Your task to perform on an android device: Open sound settings Image 0: 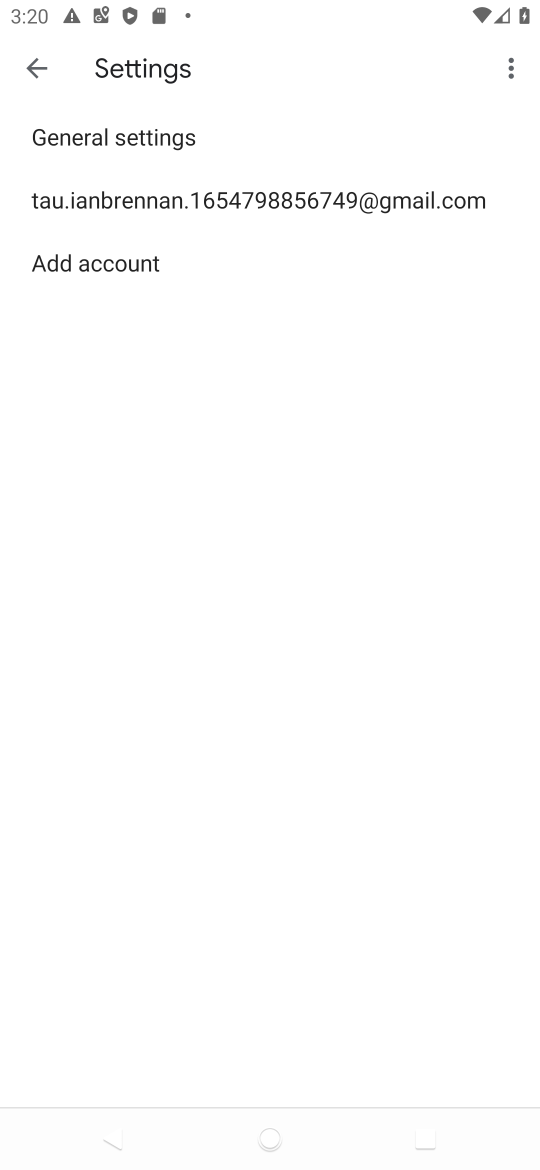
Step 0: drag from (284, 963) to (211, 138)
Your task to perform on an android device: Open sound settings Image 1: 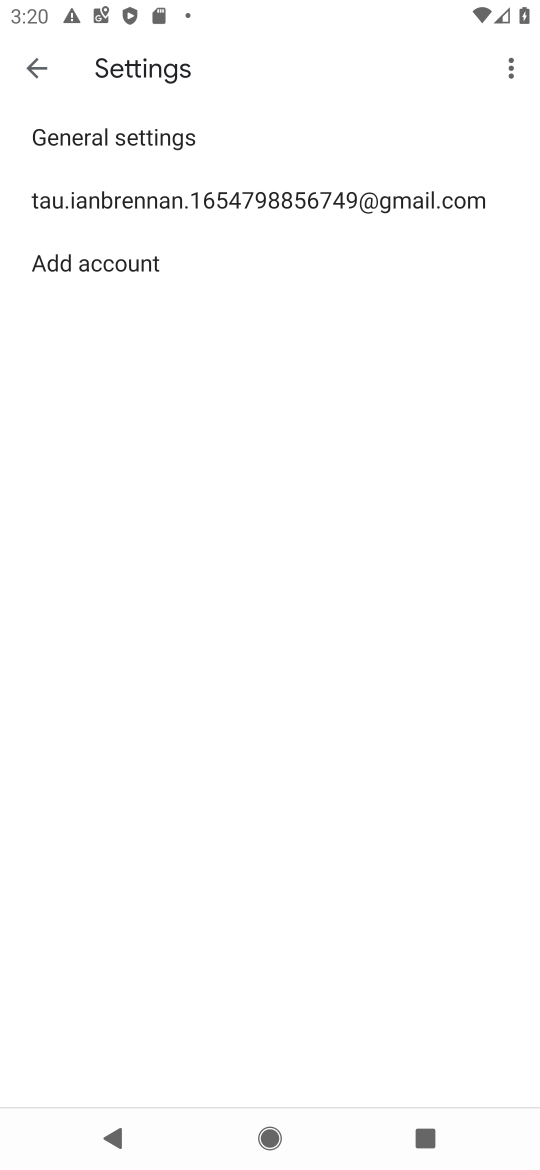
Step 1: press home button
Your task to perform on an android device: Open sound settings Image 2: 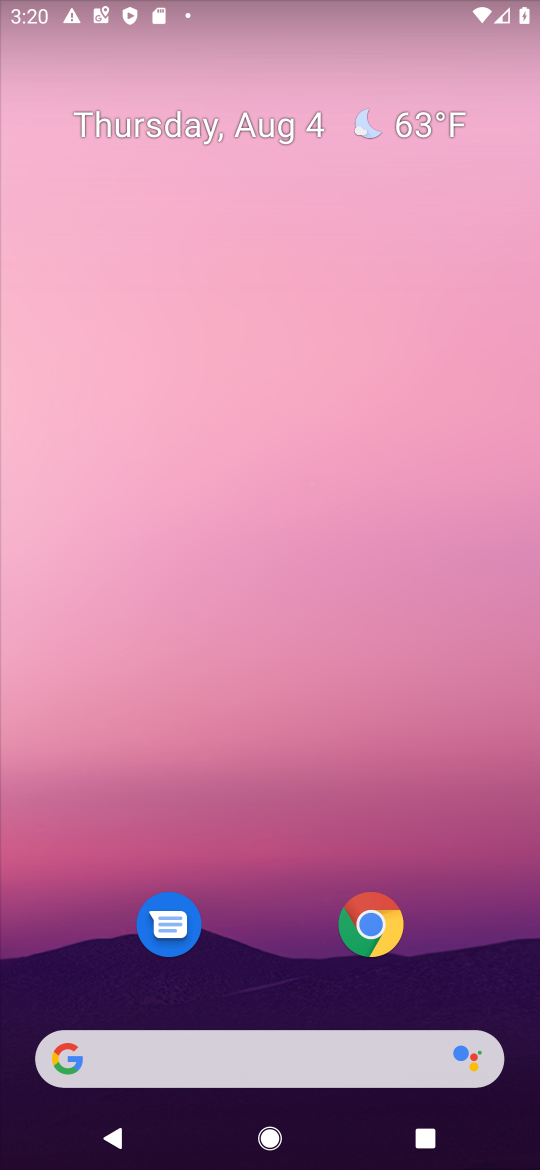
Step 2: drag from (261, 956) to (234, 120)
Your task to perform on an android device: Open sound settings Image 3: 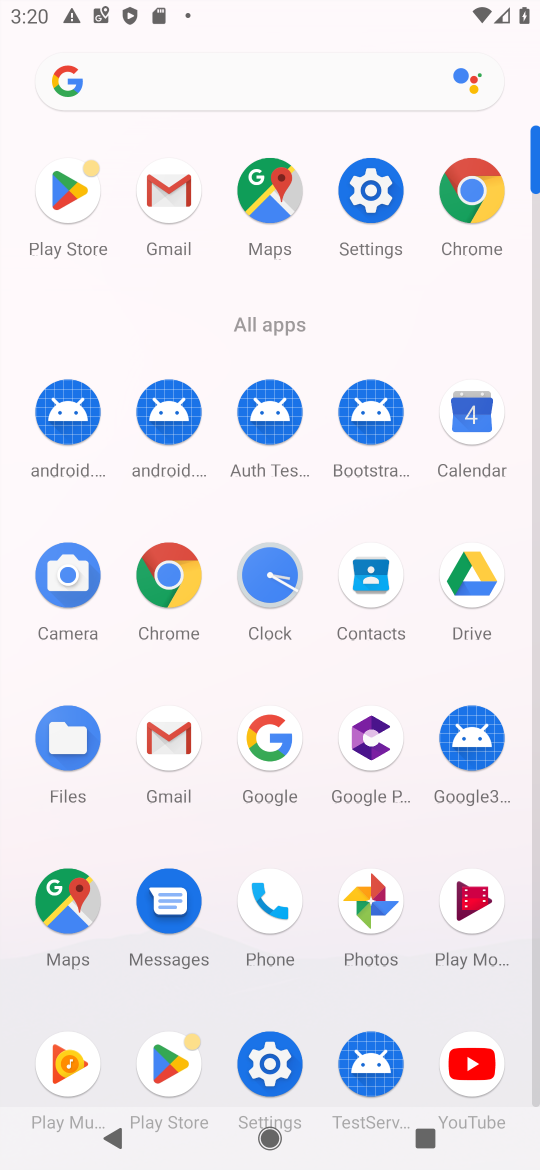
Step 3: click (355, 189)
Your task to perform on an android device: Open sound settings Image 4: 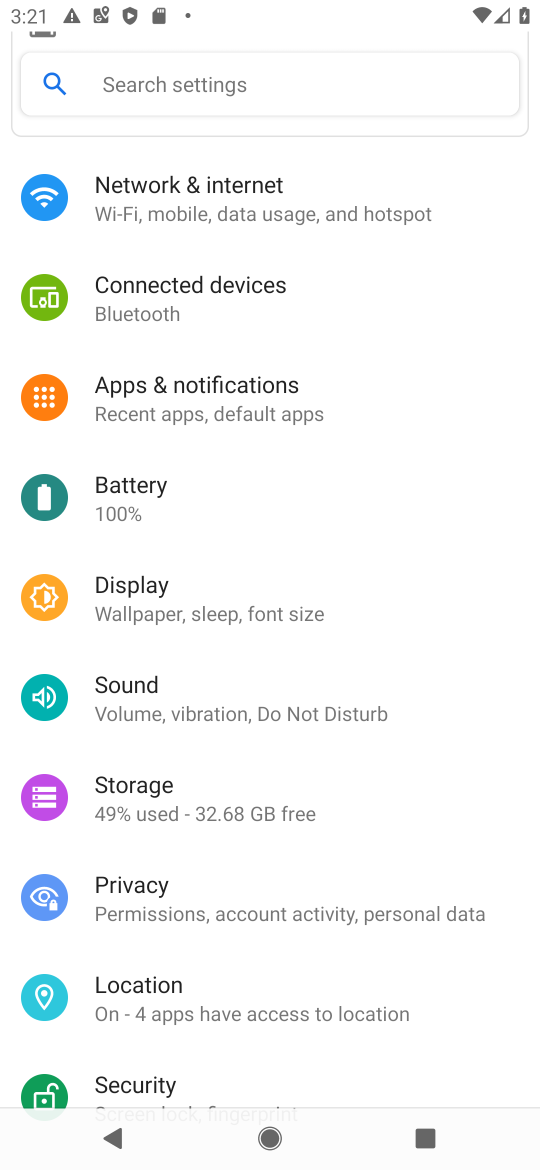
Step 4: click (135, 689)
Your task to perform on an android device: Open sound settings Image 5: 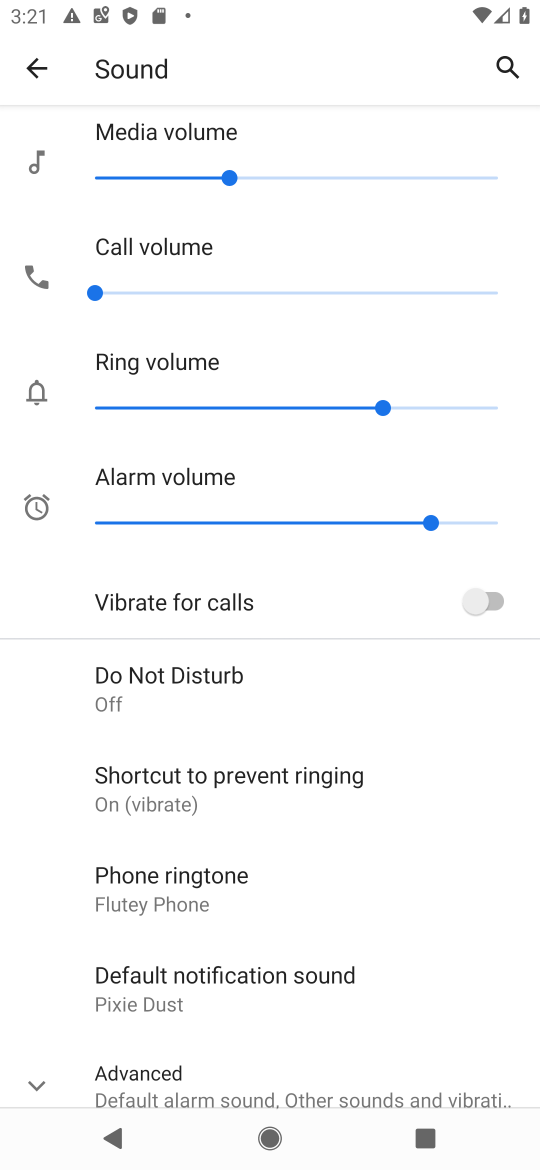
Step 5: task complete